Your task to perform on an android device: What's on my calendar today? Image 0: 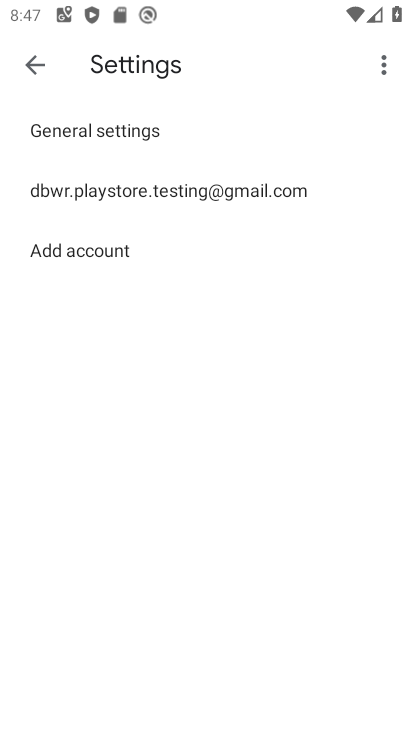
Step 0: press home button
Your task to perform on an android device: What's on my calendar today? Image 1: 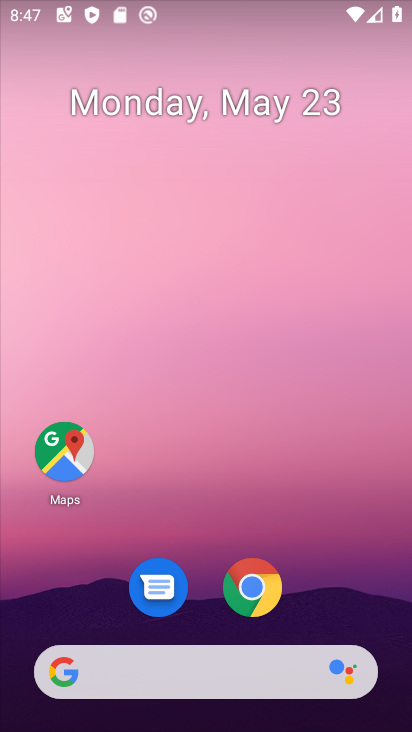
Step 1: click (185, 96)
Your task to perform on an android device: What's on my calendar today? Image 2: 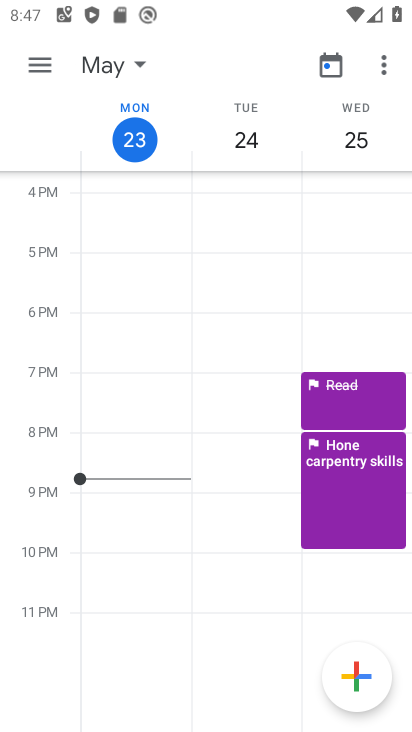
Step 2: click (45, 65)
Your task to perform on an android device: What's on my calendar today? Image 3: 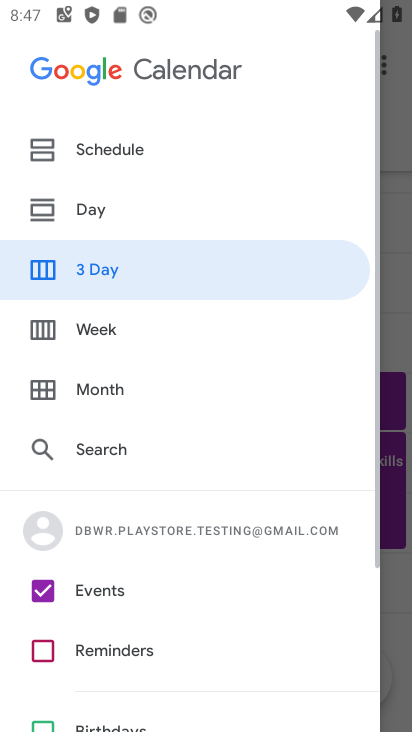
Step 3: click (90, 142)
Your task to perform on an android device: What's on my calendar today? Image 4: 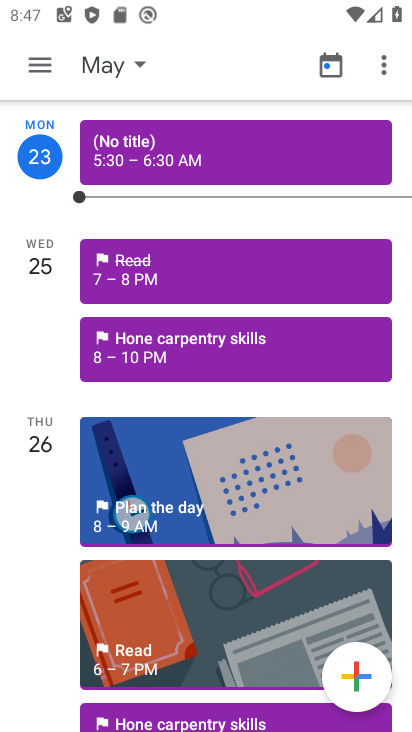
Step 4: click (120, 70)
Your task to perform on an android device: What's on my calendar today? Image 5: 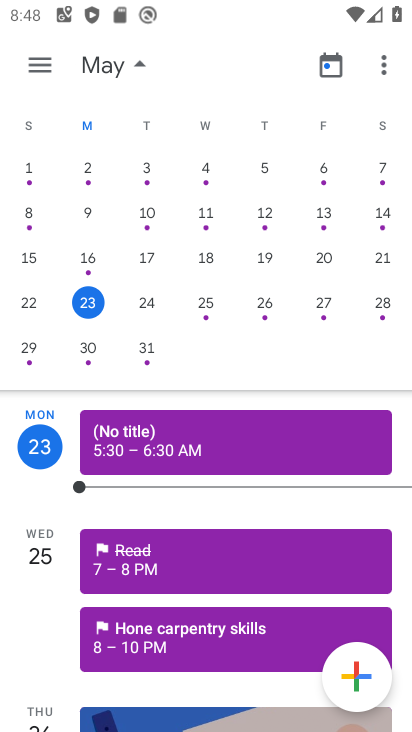
Step 5: click (147, 307)
Your task to perform on an android device: What's on my calendar today? Image 6: 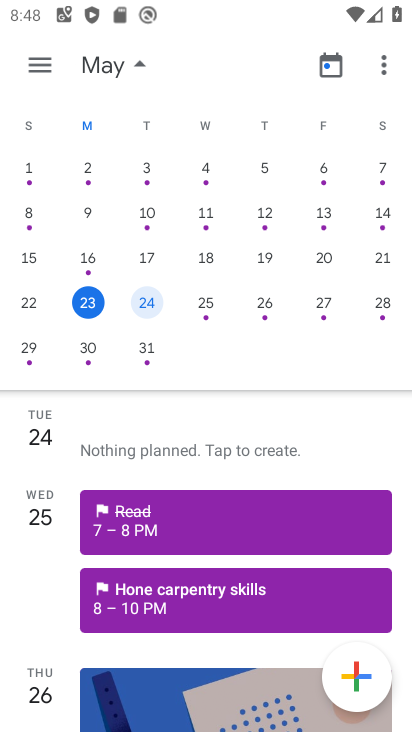
Step 6: task complete